Your task to perform on an android device: change the clock display to digital Image 0: 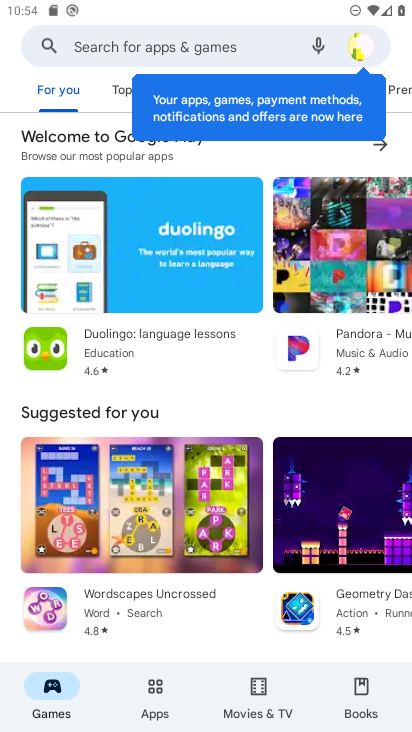
Step 0: press back button
Your task to perform on an android device: change the clock display to digital Image 1: 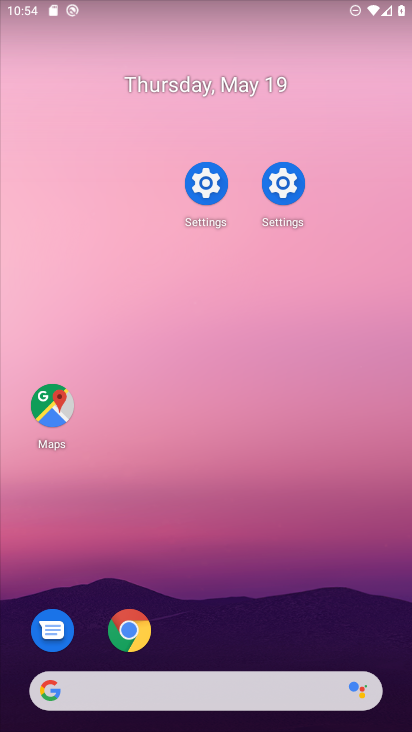
Step 1: drag from (269, 617) to (171, 13)
Your task to perform on an android device: change the clock display to digital Image 2: 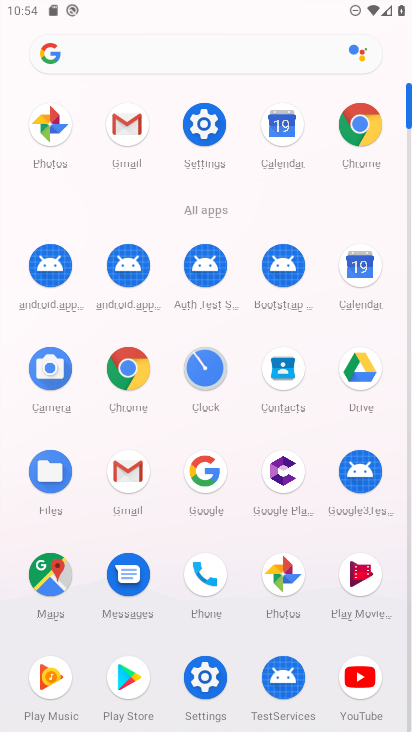
Step 2: click (200, 370)
Your task to perform on an android device: change the clock display to digital Image 3: 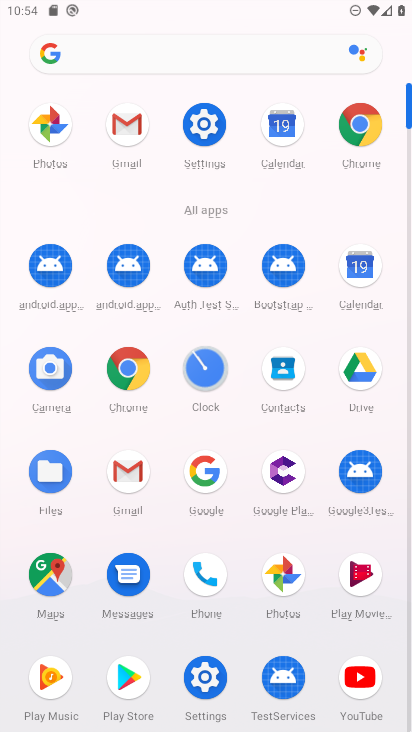
Step 3: click (200, 370)
Your task to perform on an android device: change the clock display to digital Image 4: 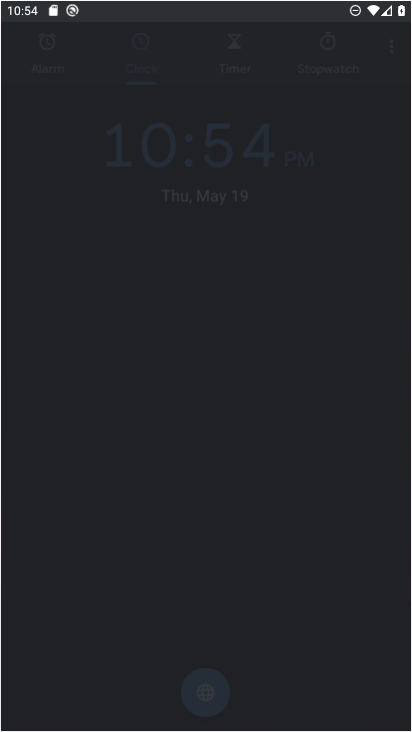
Step 4: click (200, 369)
Your task to perform on an android device: change the clock display to digital Image 5: 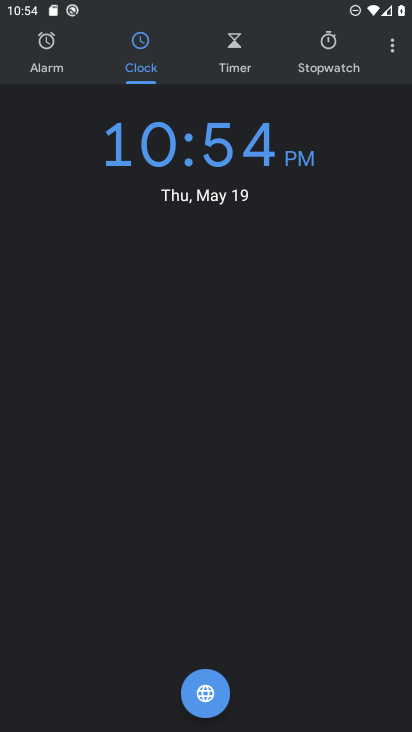
Step 5: click (382, 48)
Your task to perform on an android device: change the clock display to digital Image 6: 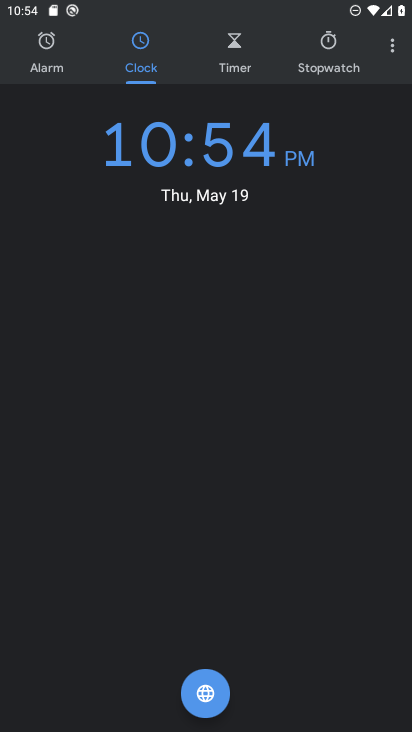
Step 6: click (396, 47)
Your task to perform on an android device: change the clock display to digital Image 7: 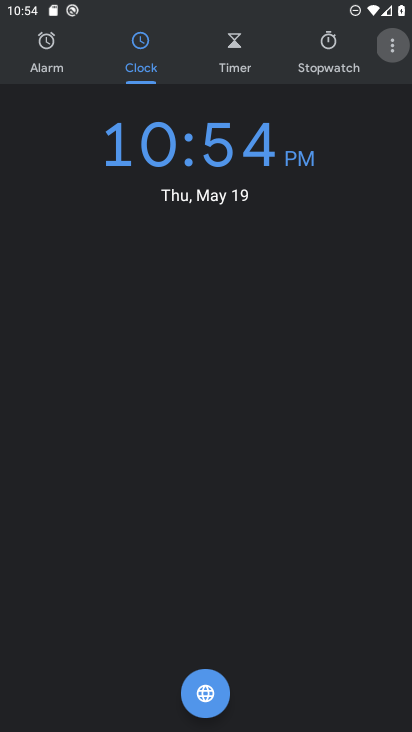
Step 7: click (396, 47)
Your task to perform on an android device: change the clock display to digital Image 8: 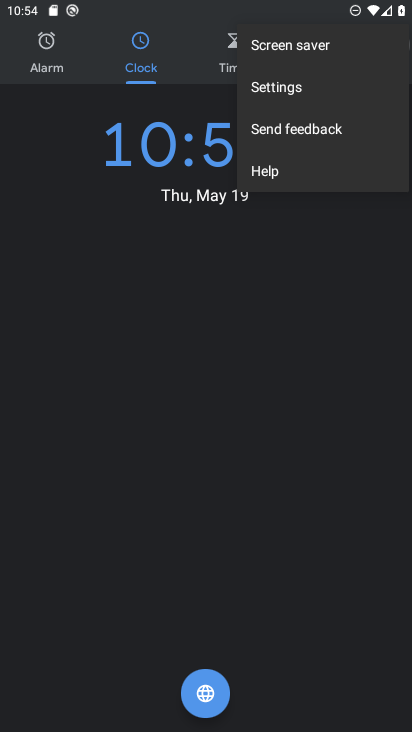
Step 8: click (391, 56)
Your task to perform on an android device: change the clock display to digital Image 9: 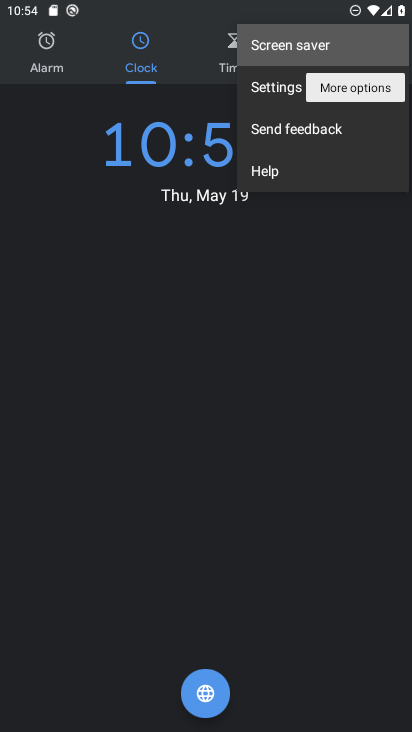
Step 9: click (392, 56)
Your task to perform on an android device: change the clock display to digital Image 10: 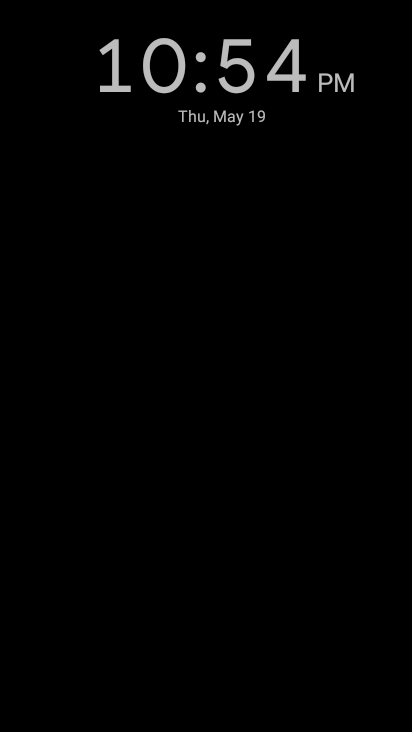
Step 10: press back button
Your task to perform on an android device: change the clock display to digital Image 11: 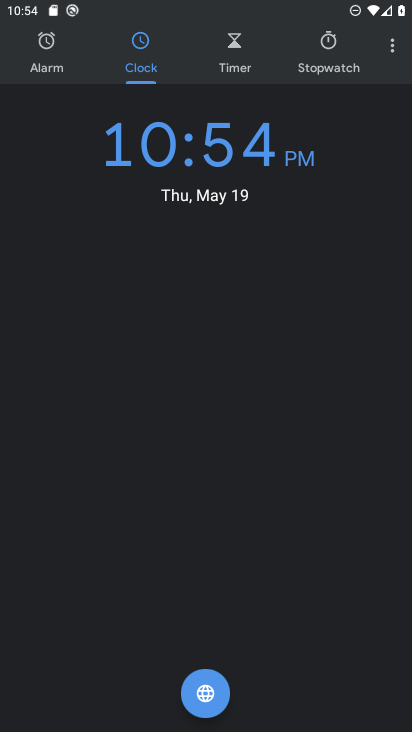
Step 11: click (341, 76)
Your task to perform on an android device: change the clock display to digital Image 12: 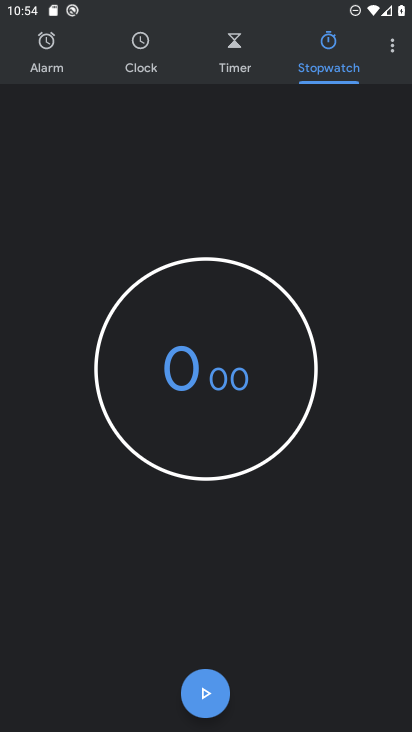
Step 12: click (387, 36)
Your task to perform on an android device: change the clock display to digital Image 13: 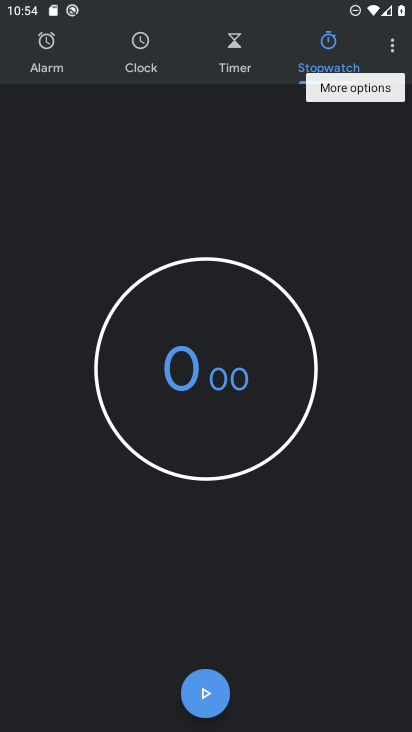
Step 13: click (359, 88)
Your task to perform on an android device: change the clock display to digital Image 14: 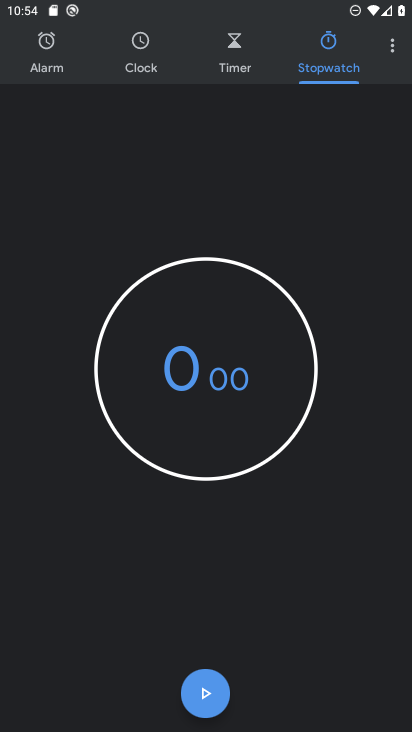
Step 14: click (359, 88)
Your task to perform on an android device: change the clock display to digital Image 15: 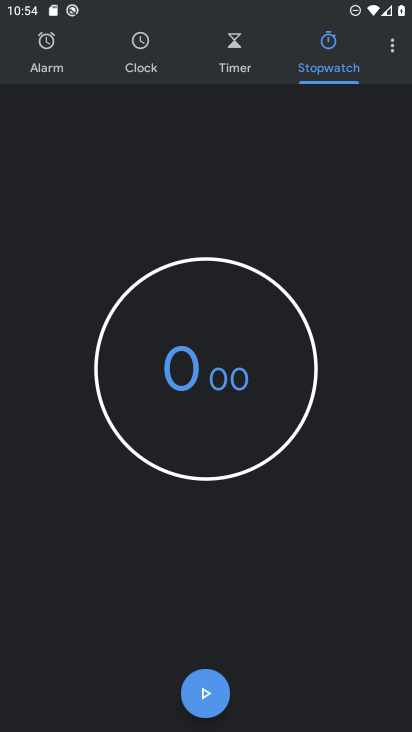
Step 15: click (396, 45)
Your task to perform on an android device: change the clock display to digital Image 16: 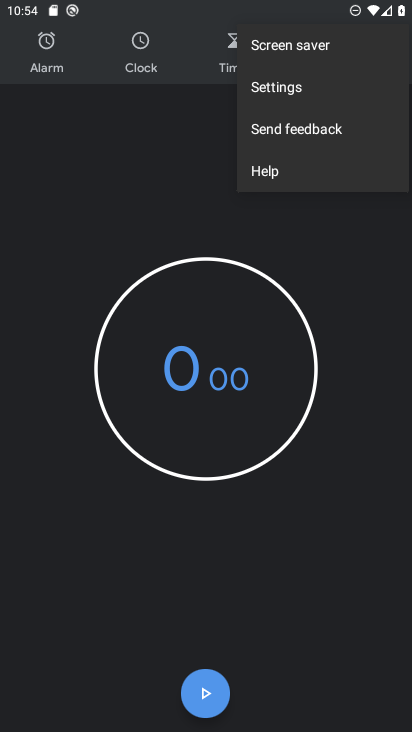
Step 16: click (277, 86)
Your task to perform on an android device: change the clock display to digital Image 17: 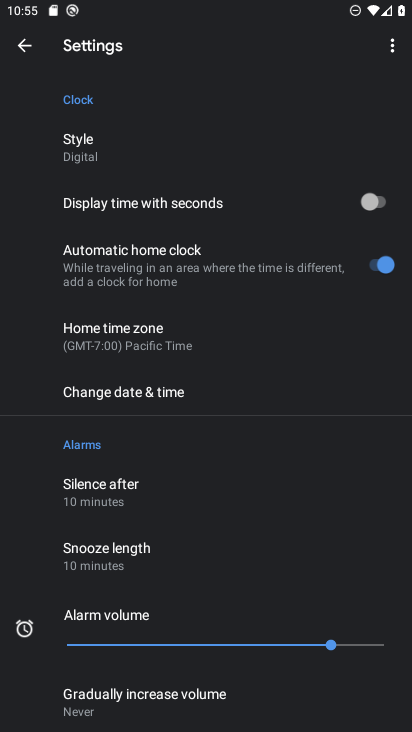
Step 17: click (153, 144)
Your task to perform on an android device: change the clock display to digital Image 18: 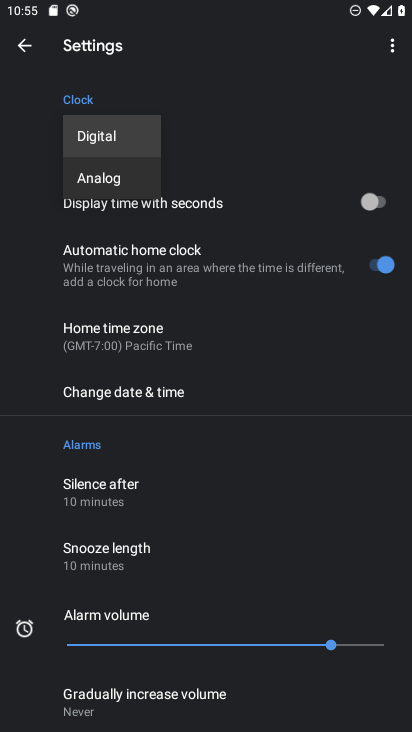
Step 18: click (154, 141)
Your task to perform on an android device: change the clock display to digital Image 19: 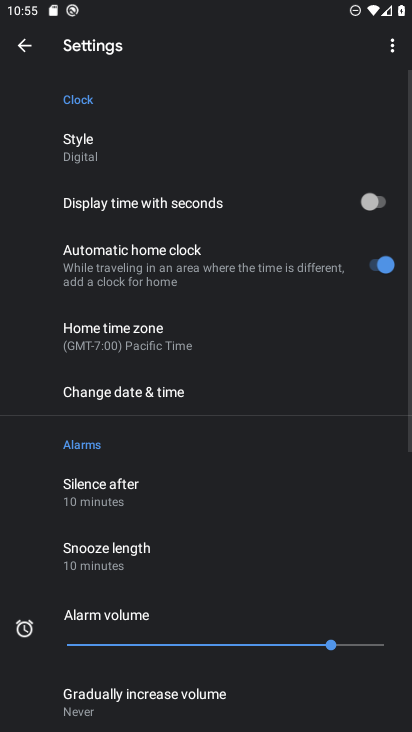
Step 19: click (139, 120)
Your task to perform on an android device: change the clock display to digital Image 20: 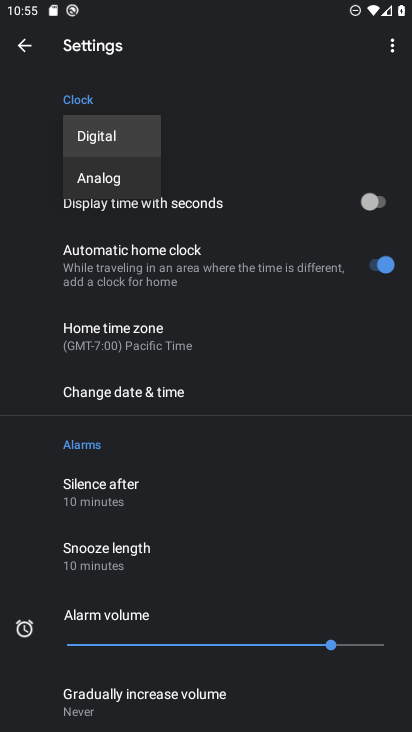
Step 20: click (119, 182)
Your task to perform on an android device: change the clock display to digital Image 21: 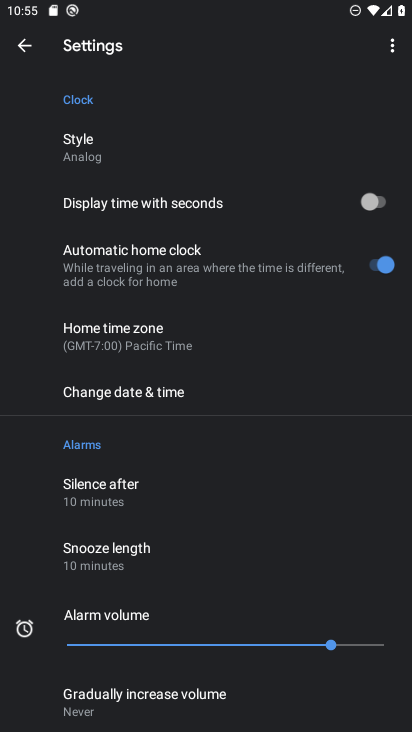
Step 21: task complete